Your task to perform on an android device: change timer sound Image 0: 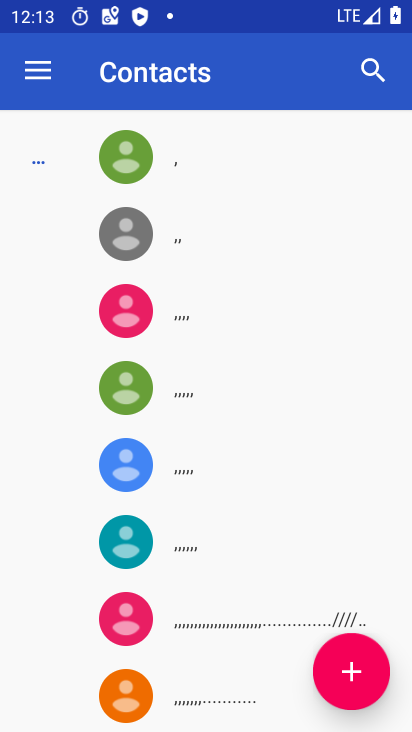
Step 0: press back button
Your task to perform on an android device: change timer sound Image 1: 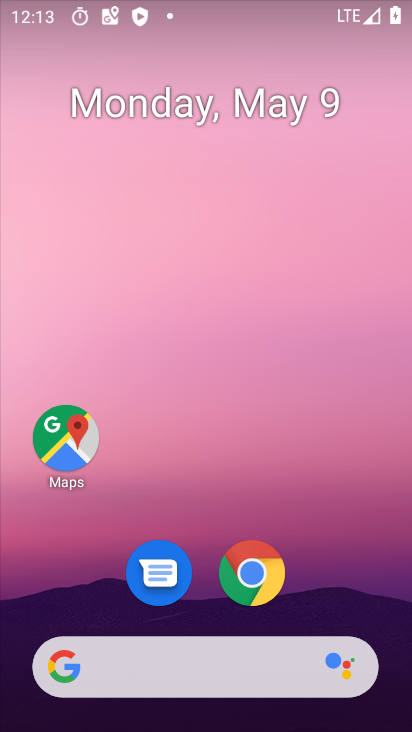
Step 1: drag from (347, 584) to (262, 20)
Your task to perform on an android device: change timer sound Image 2: 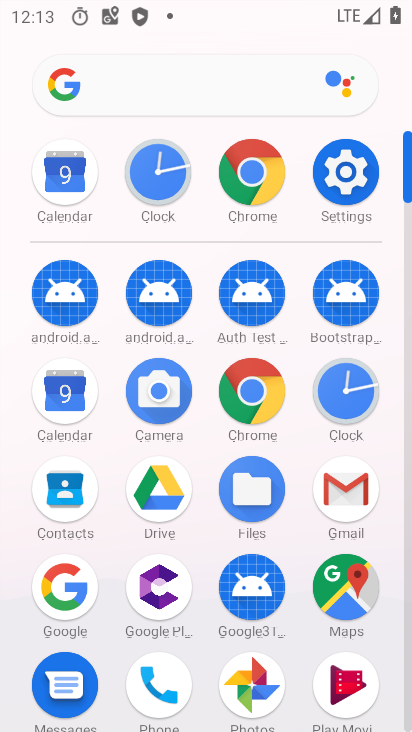
Step 2: drag from (7, 523) to (0, 198)
Your task to perform on an android device: change timer sound Image 3: 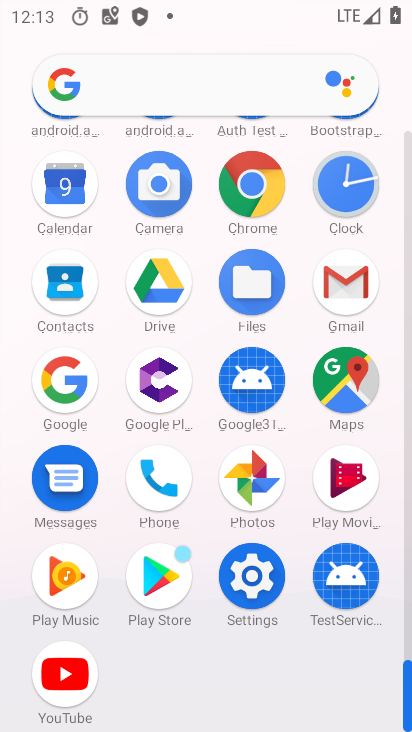
Step 3: click (347, 176)
Your task to perform on an android device: change timer sound Image 4: 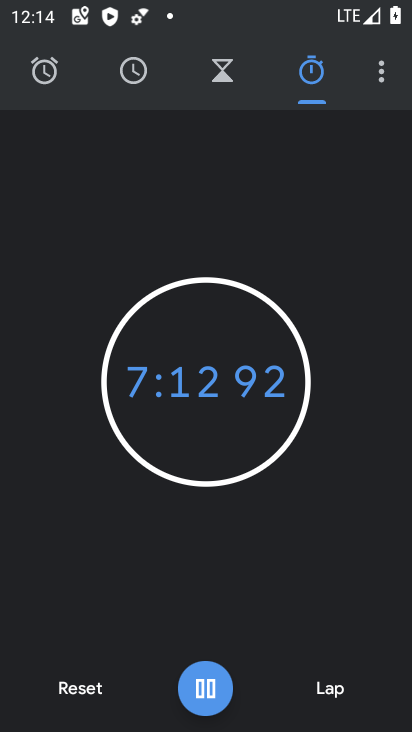
Step 4: drag from (383, 69) to (265, 136)
Your task to perform on an android device: change timer sound Image 5: 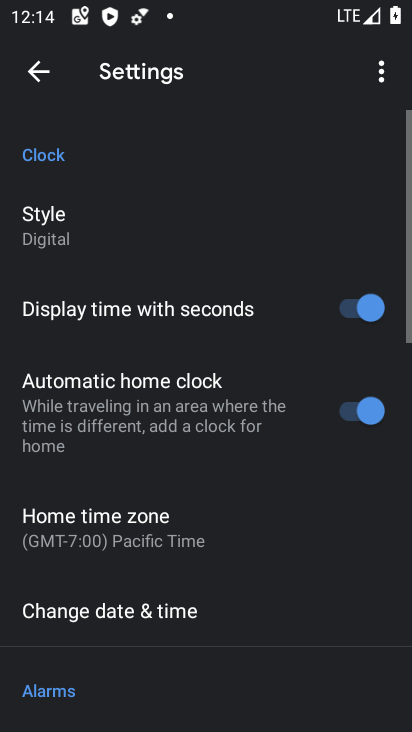
Step 5: drag from (225, 500) to (215, 143)
Your task to perform on an android device: change timer sound Image 6: 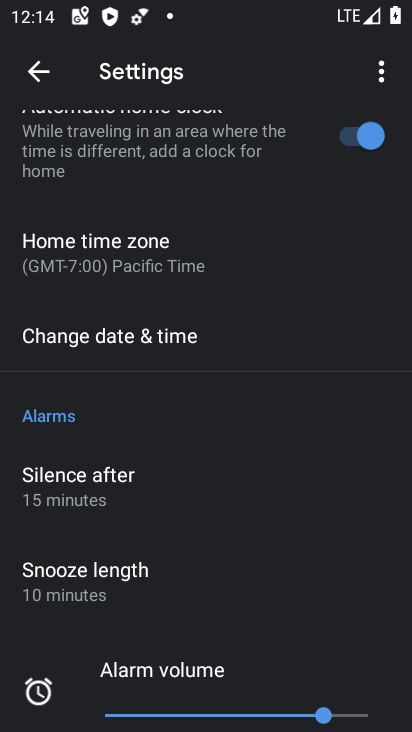
Step 6: drag from (162, 485) to (193, 124)
Your task to perform on an android device: change timer sound Image 7: 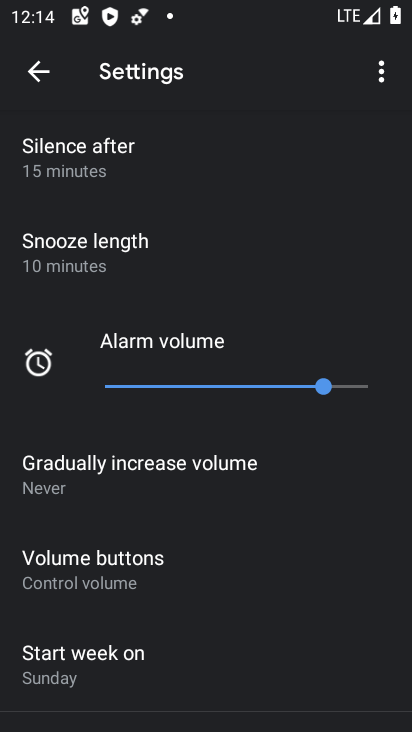
Step 7: drag from (172, 541) to (225, 167)
Your task to perform on an android device: change timer sound Image 8: 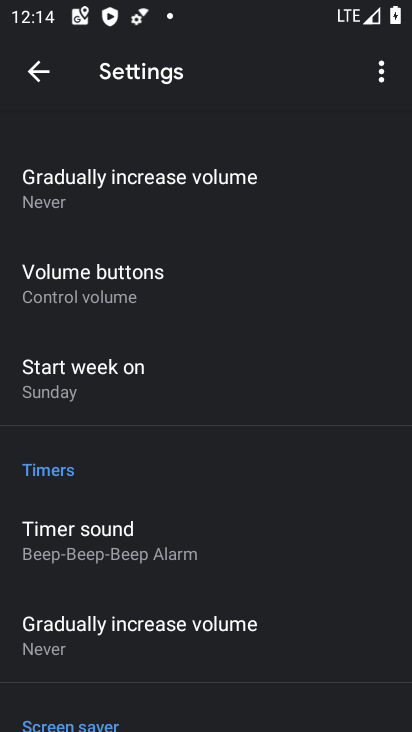
Step 8: click (114, 531)
Your task to perform on an android device: change timer sound Image 9: 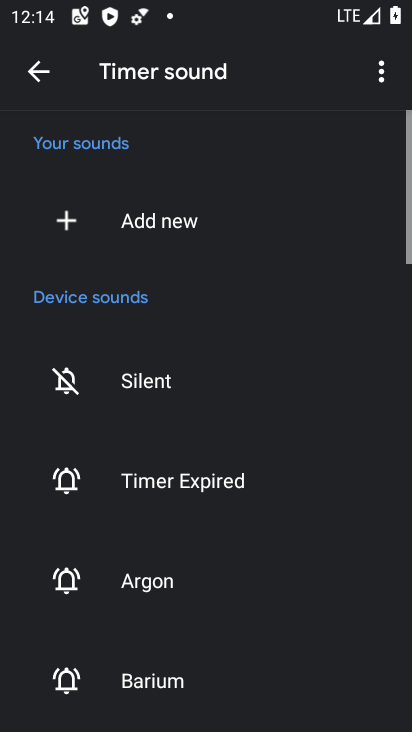
Step 9: drag from (186, 660) to (278, 150)
Your task to perform on an android device: change timer sound Image 10: 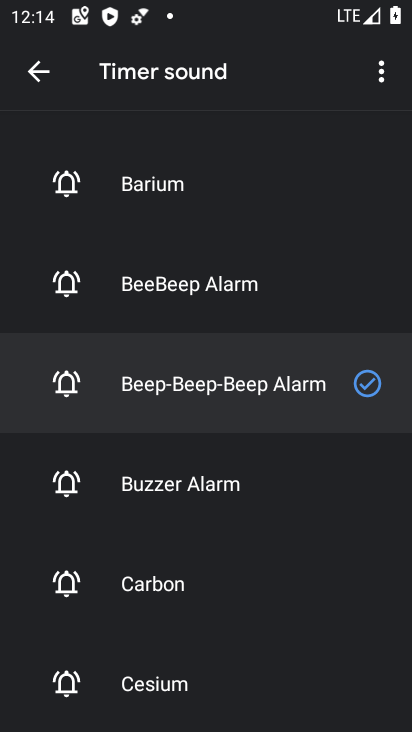
Step 10: click (181, 485)
Your task to perform on an android device: change timer sound Image 11: 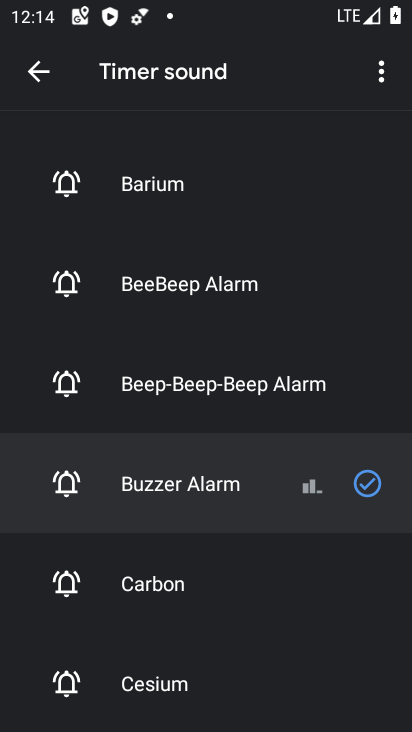
Step 11: task complete